Your task to perform on an android device: How much does a 3 bedroom apartment rent for in Miami? Image 0: 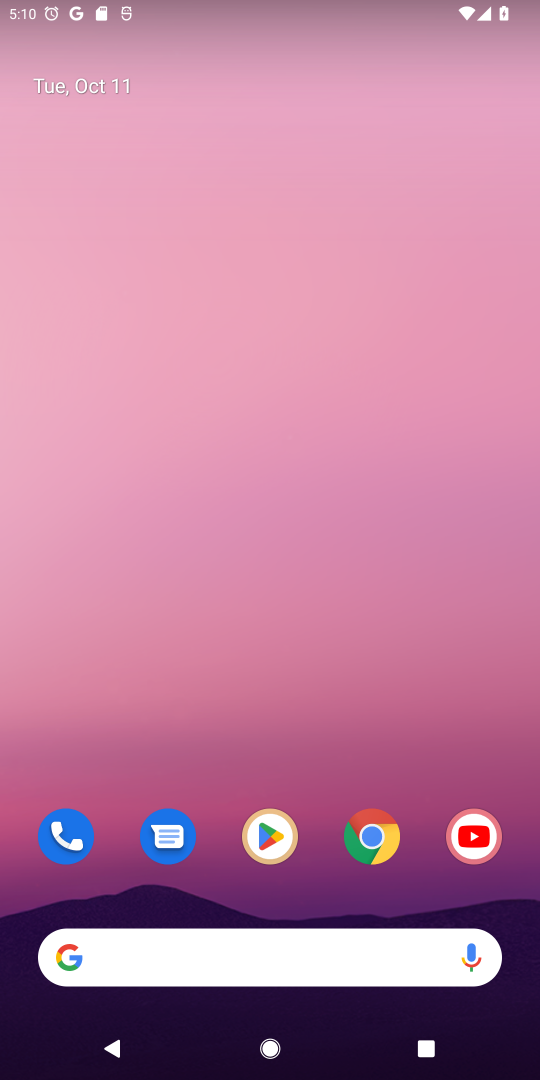
Step 0: click (257, 976)
Your task to perform on an android device: How much does a 3 bedroom apartment rent for in Miami? Image 1: 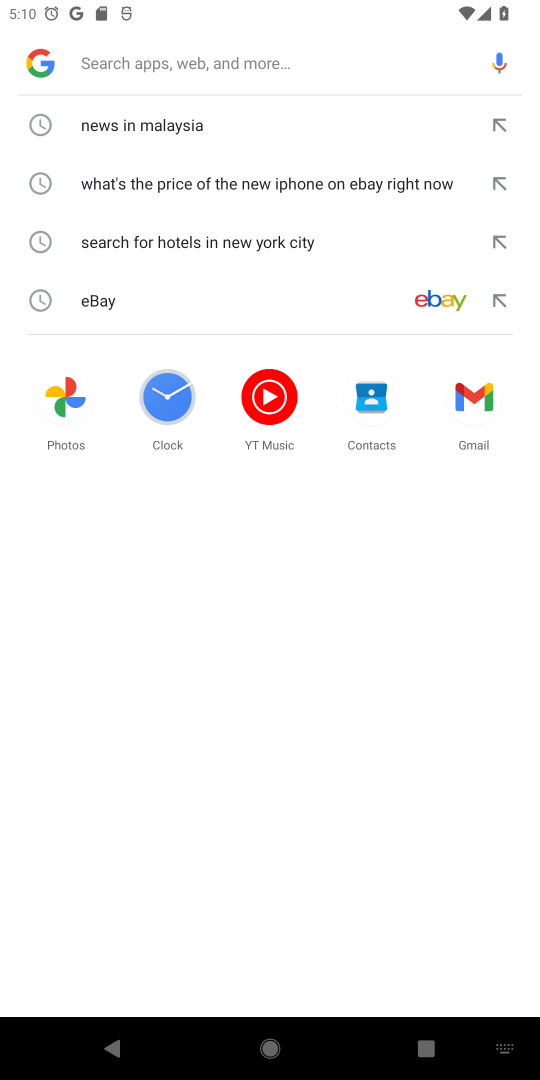
Step 1: type "How much does a 3 bedroom apartment rent for in Miami?"
Your task to perform on an android device: How much does a 3 bedroom apartment rent for in Miami? Image 2: 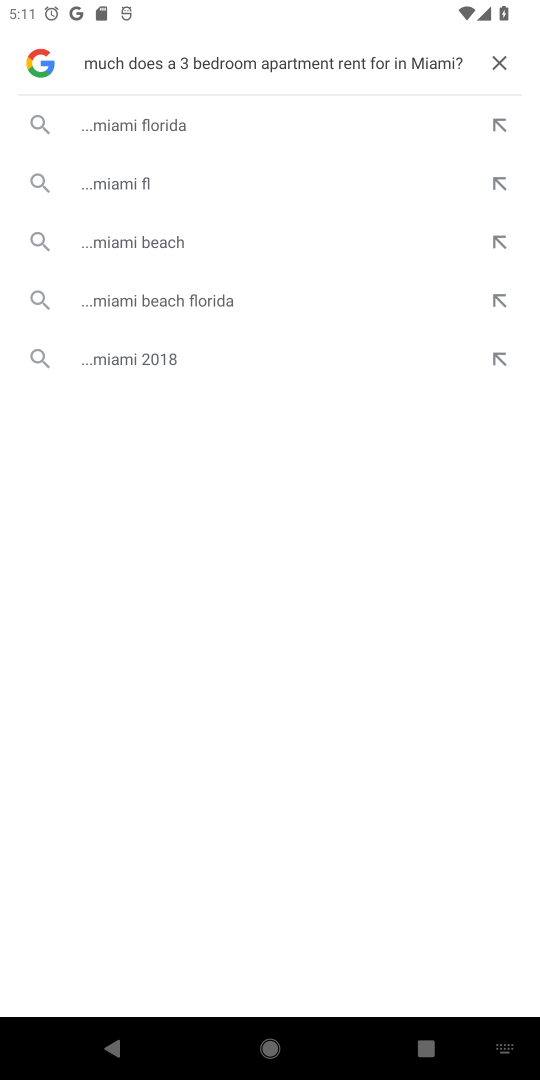
Step 2: click (153, 109)
Your task to perform on an android device: How much does a 3 bedroom apartment rent for in Miami? Image 3: 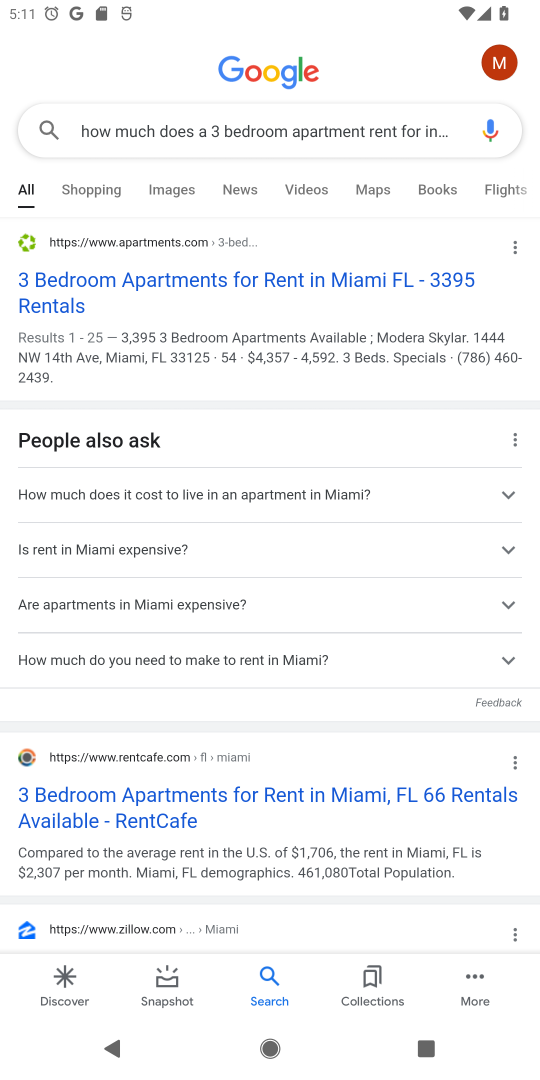
Step 3: task complete